Your task to perform on an android device: turn off sleep mode Image 0: 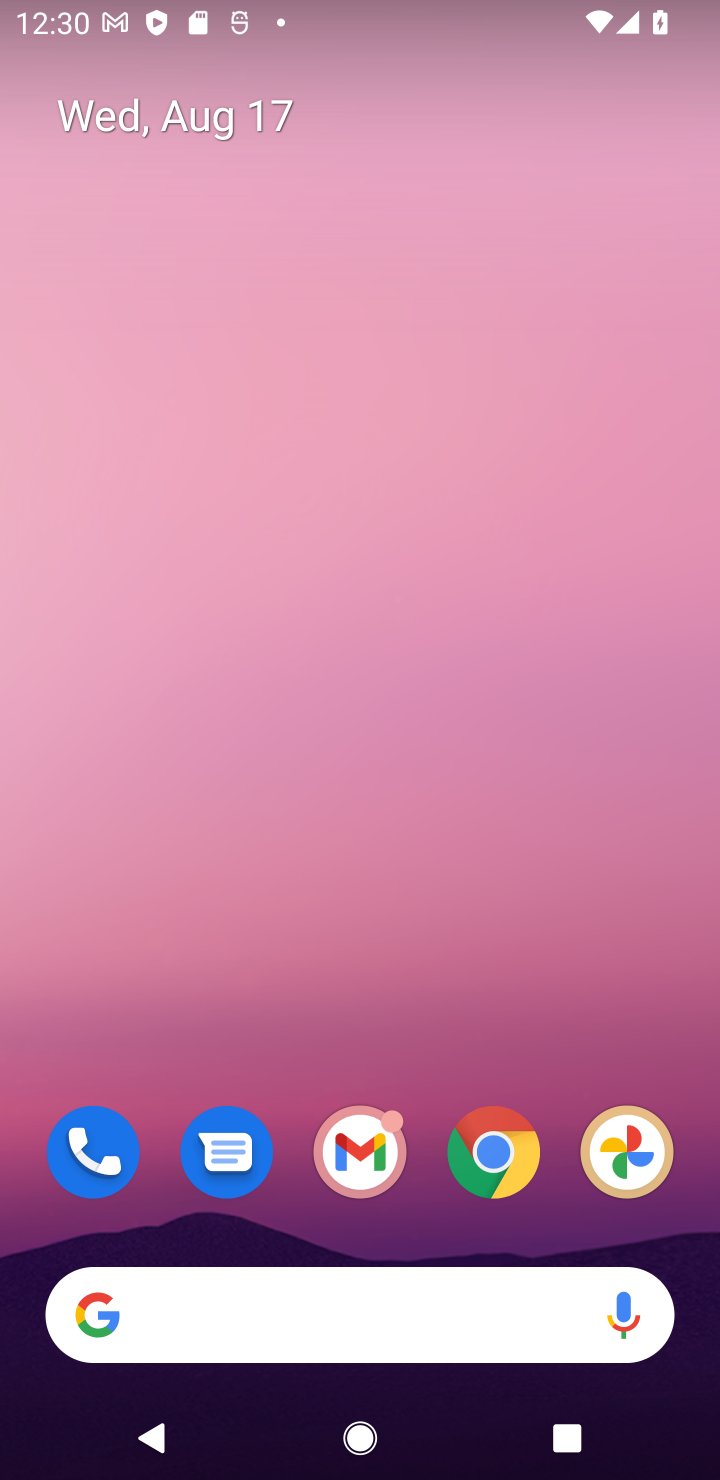
Step 0: drag from (553, 1218) to (344, 142)
Your task to perform on an android device: turn off sleep mode Image 1: 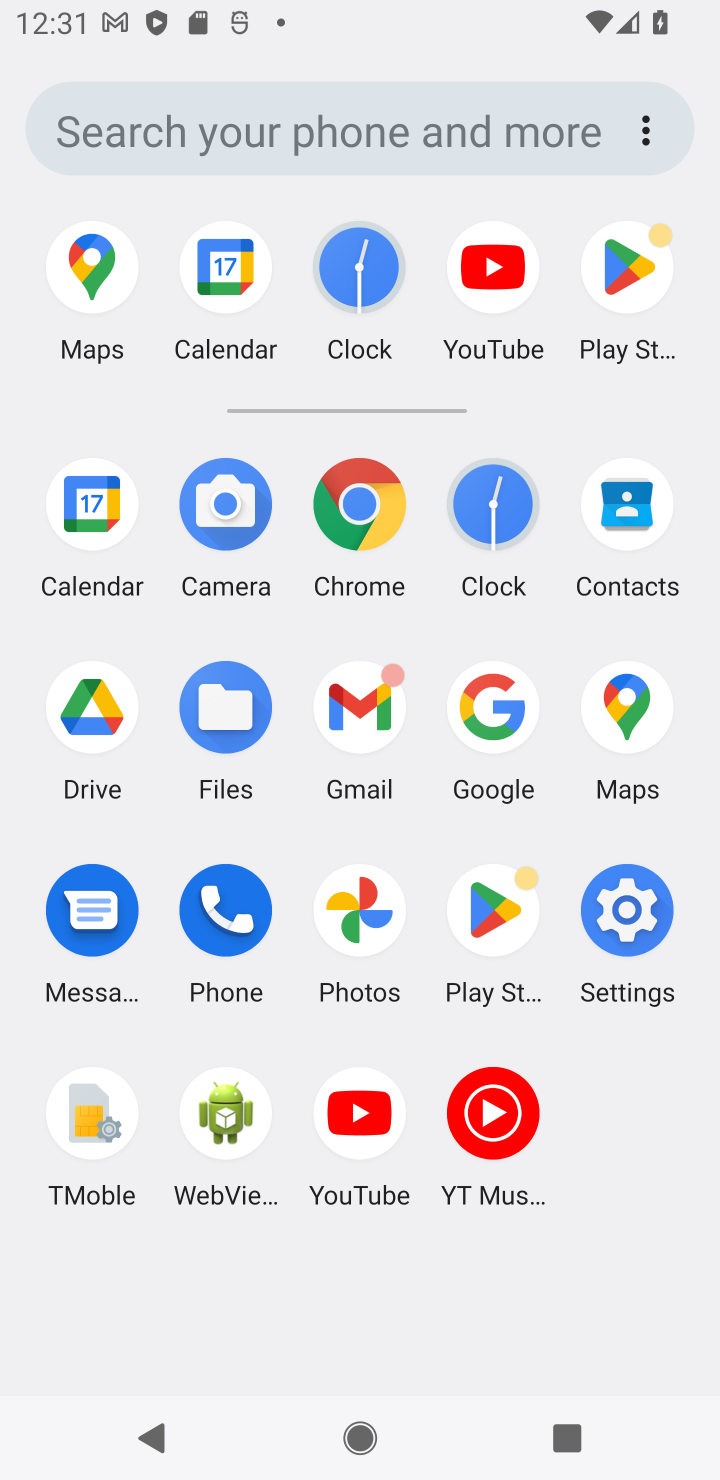
Step 1: click (619, 921)
Your task to perform on an android device: turn off sleep mode Image 2: 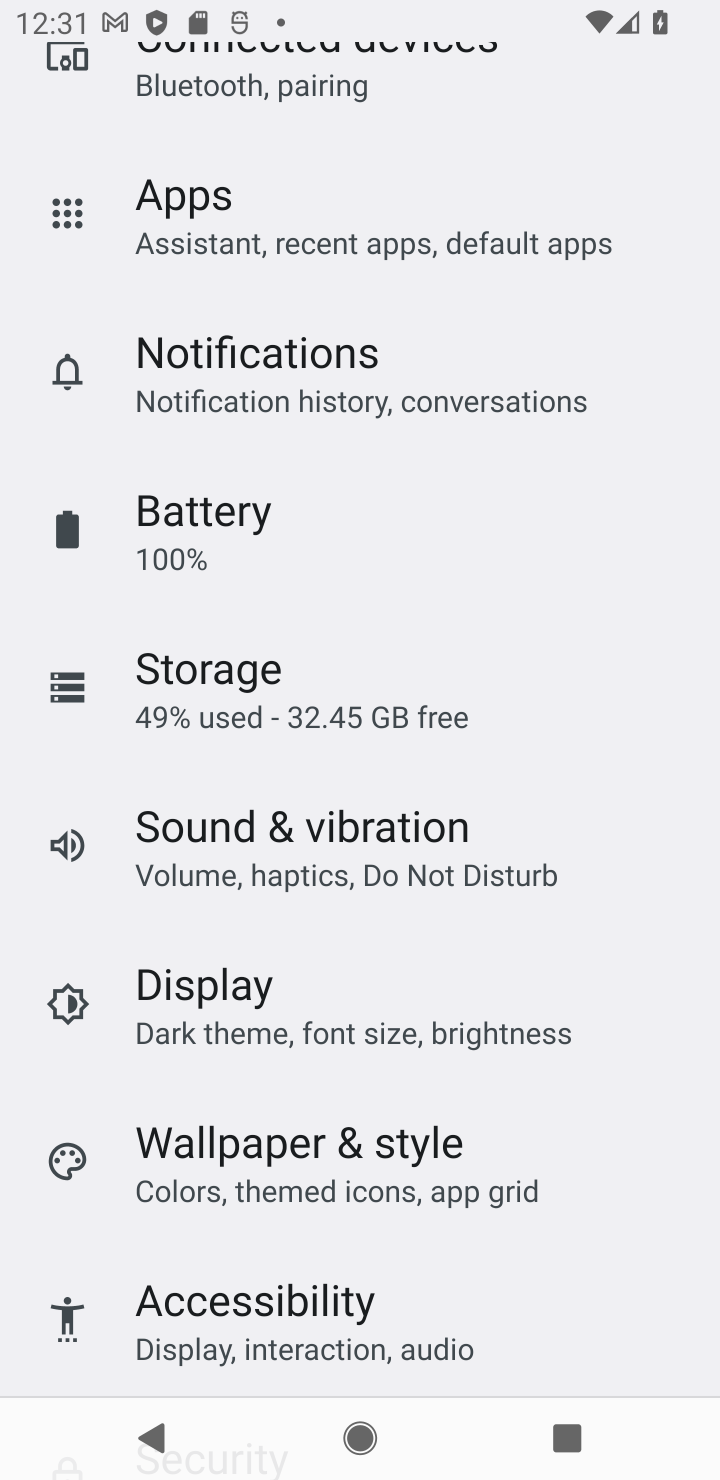
Step 2: task complete